Your task to perform on an android device: choose inbox layout in the gmail app Image 0: 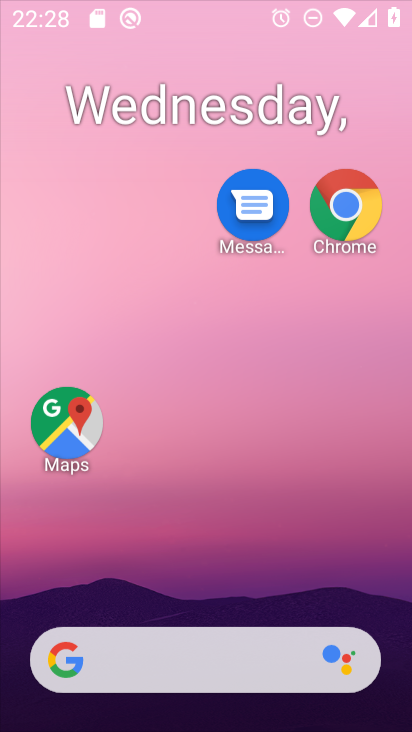
Step 0: click (83, 204)
Your task to perform on an android device: choose inbox layout in the gmail app Image 1: 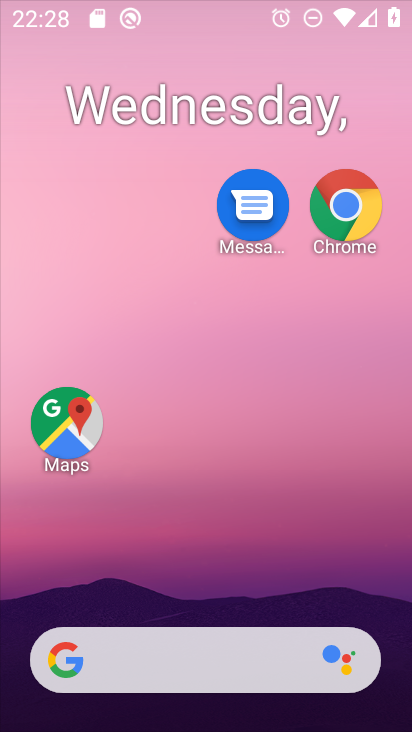
Step 1: drag from (236, 492) to (236, 202)
Your task to perform on an android device: choose inbox layout in the gmail app Image 2: 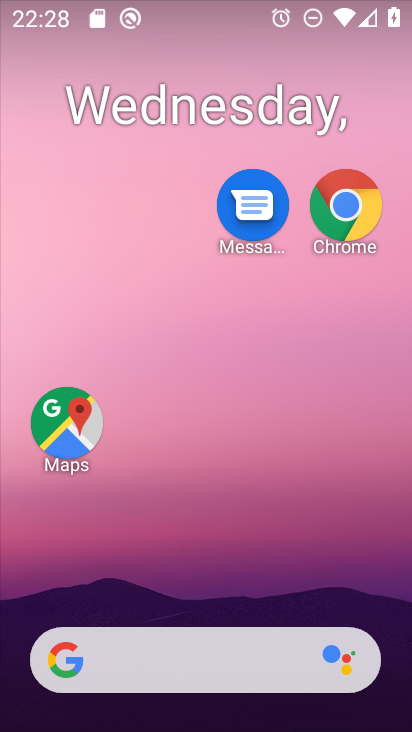
Step 2: drag from (211, 502) to (200, 123)
Your task to perform on an android device: choose inbox layout in the gmail app Image 3: 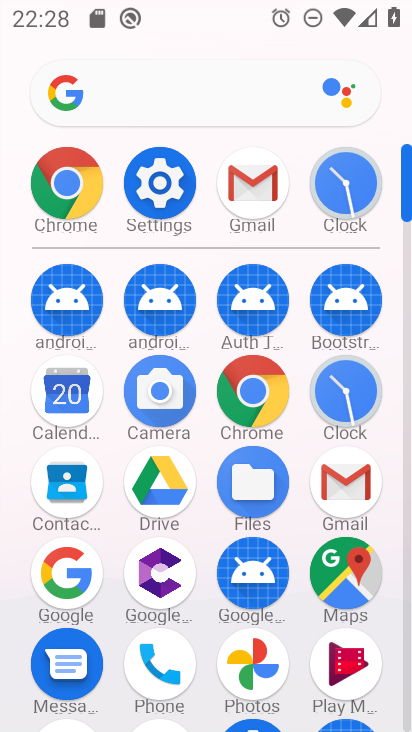
Step 3: click (344, 476)
Your task to perform on an android device: choose inbox layout in the gmail app Image 4: 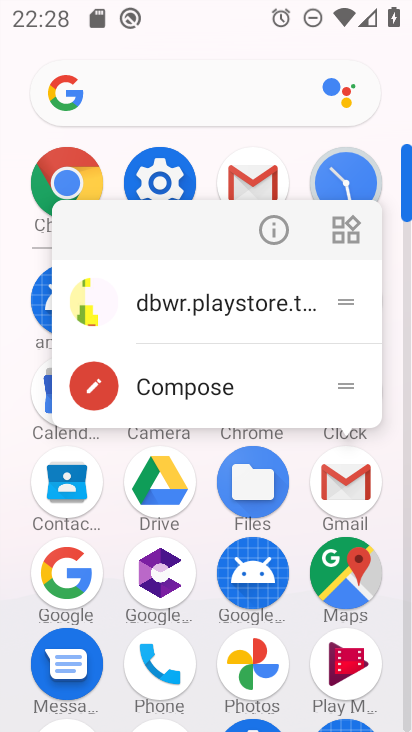
Step 4: click (274, 215)
Your task to perform on an android device: choose inbox layout in the gmail app Image 5: 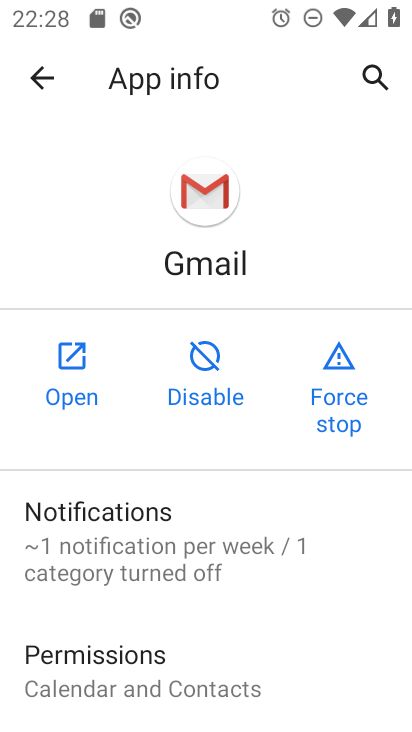
Step 5: click (20, 367)
Your task to perform on an android device: choose inbox layout in the gmail app Image 6: 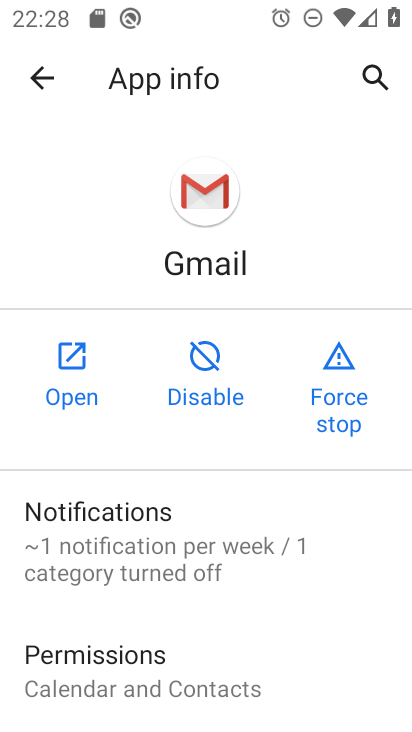
Step 6: click (40, 367)
Your task to perform on an android device: choose inbox layout in the gmail app Image 7: 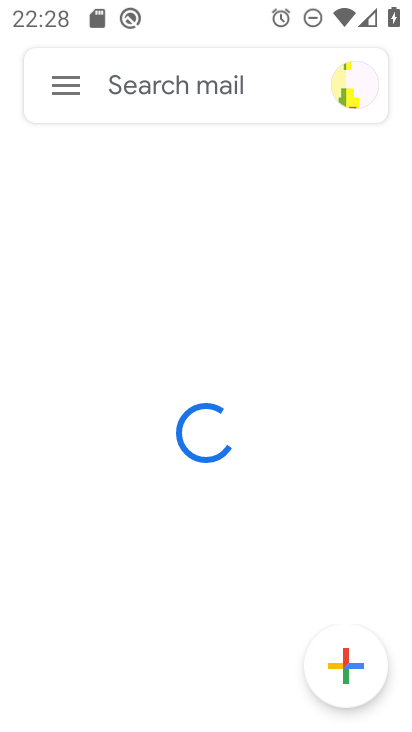
Step 7: click (84, 83)
Your task to perform on an android device: choose inbox layout in the gmail app Image 8: 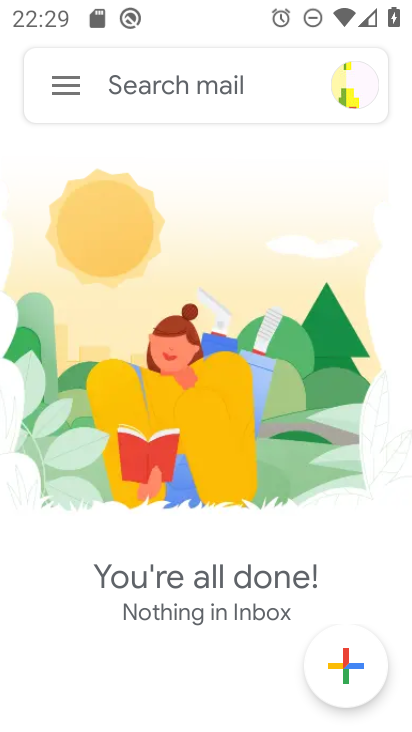
Step 8: click (74, 91)
Your task to perform on an android device: choose inbox layout in the gmail app Image 9: 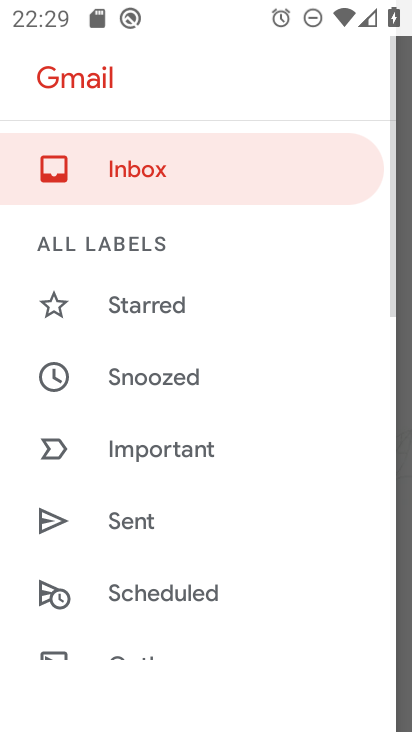
Step 9: click (144, 186)
Your task to perform on an android device: choose inbox layout in the gmail app Image 10: 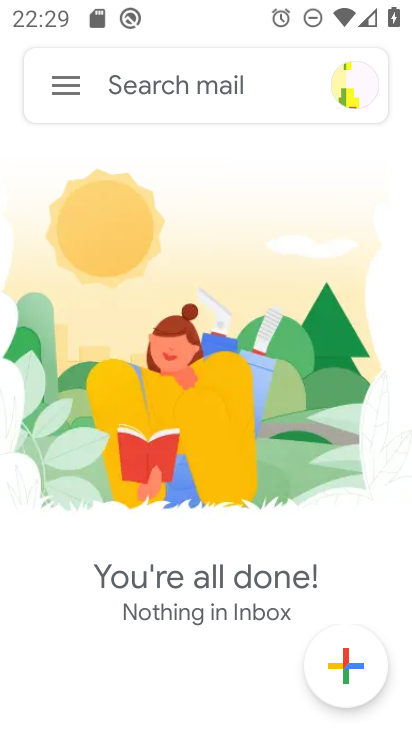
Step 10: task complete